Your task to perform on an android device: Show the shopping cart on newegg. Add dell alienware to the cart on newegg, then select checkout. Image 0: 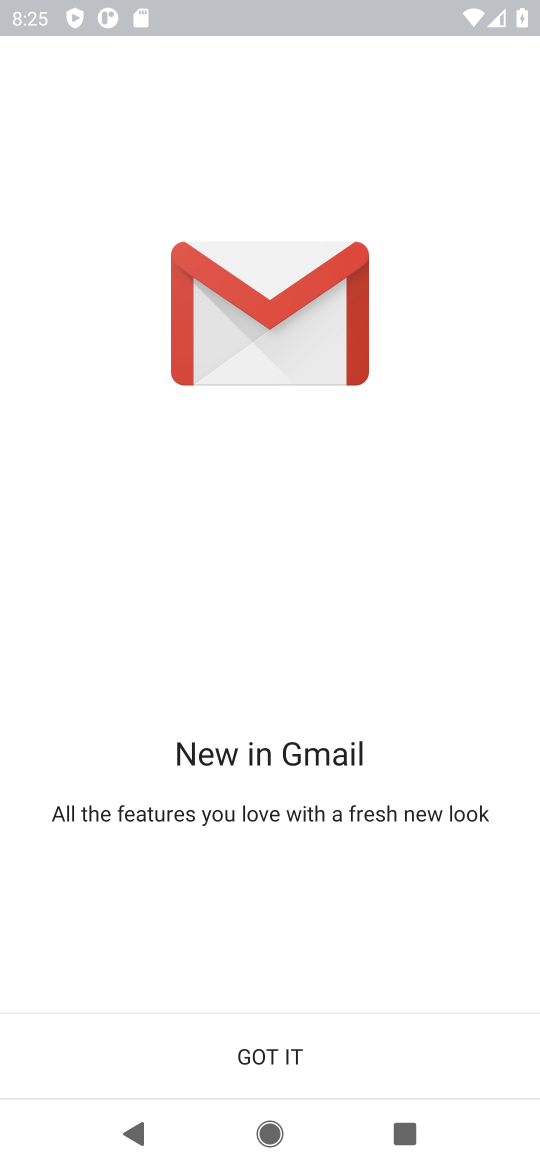
Step 0: press home button
Your task to perform on an android device: Show the shopping cart on newegg. Add dell alienware to the cart on newegg, then select checkout. Image 1: 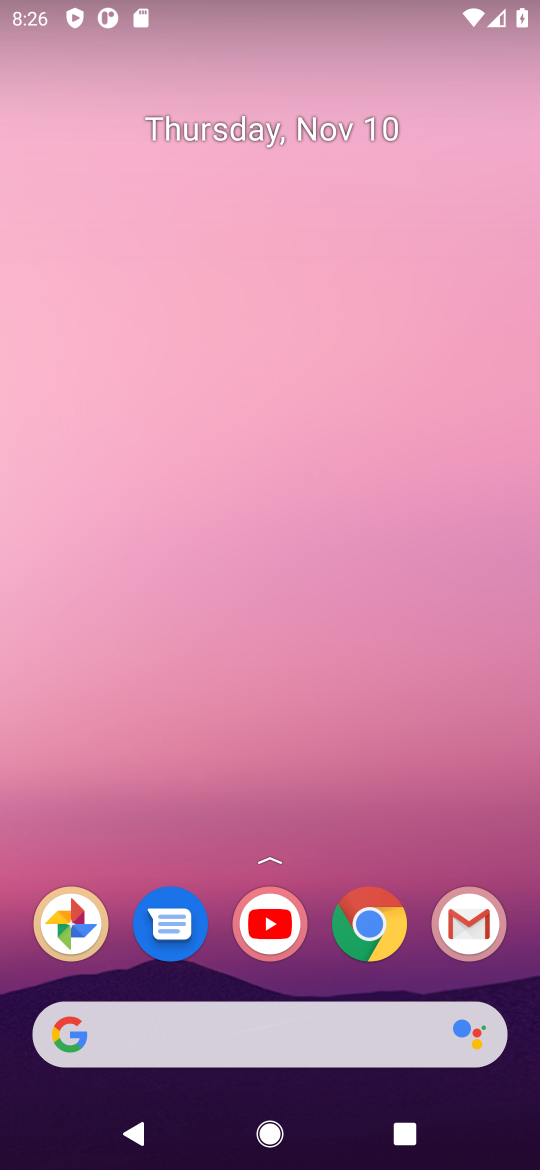
Step 1: click (380, 918)
Your task to perform on an android device: Show the shopping cart on newegg. Add dell alienware to the cart on newegg, then select checkout. Image 2: 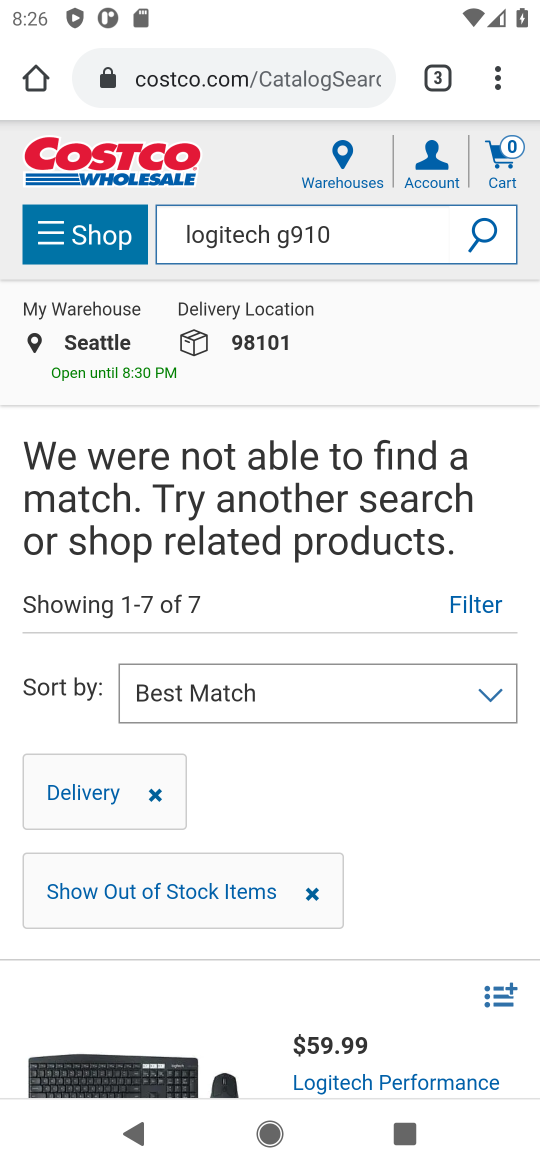
Step 2: click (253, 90)
Your task to perform on an android device: Show the shopping cart on newegg. Add dell alienware to the cart on newegg, then select checkout. Image 3: 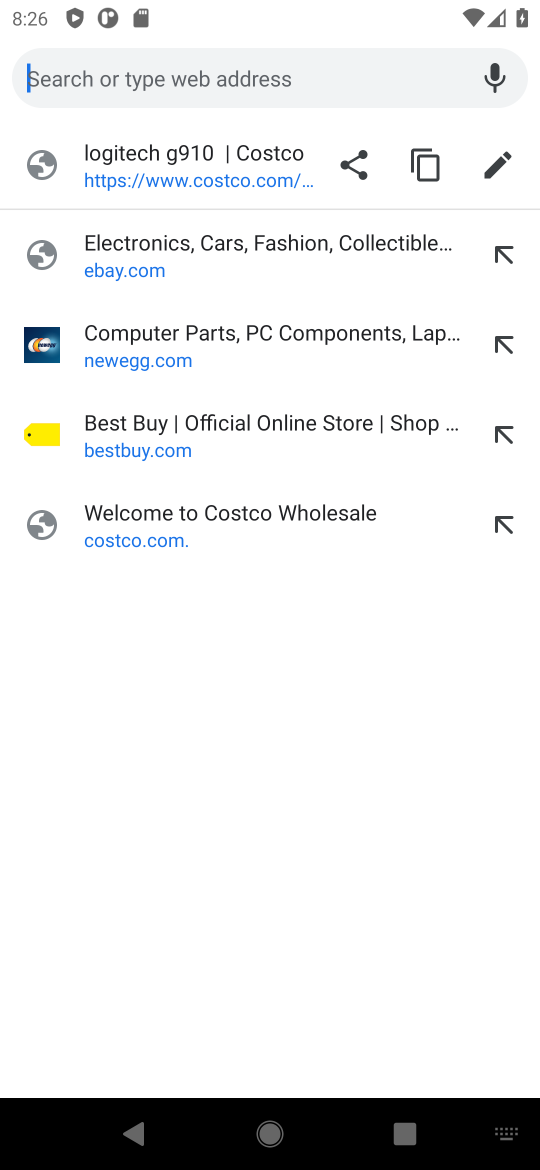
Step 3: click (106, 356)
Your task to perform on an android device: Show the shopping cart on newegg. Add dell alienware to the cart on newegg, then select checkout. Image 4: 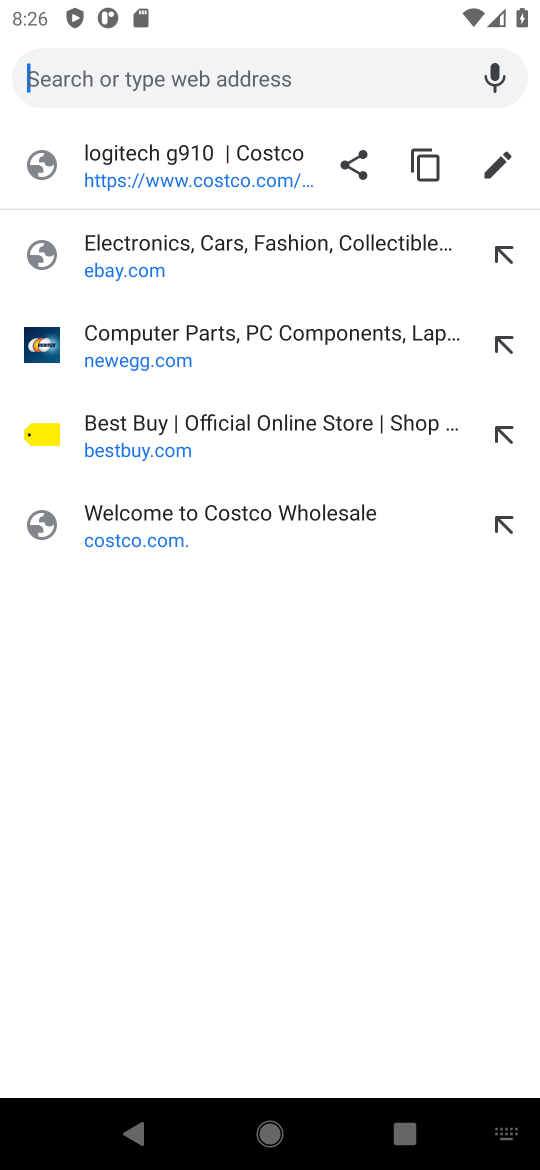
Step 4: click (124, 356)
Your task to perform on an android device: Show the shopping cart on newegg. Add dell alienware to the cart on newegg, then select checkout. Image 5: 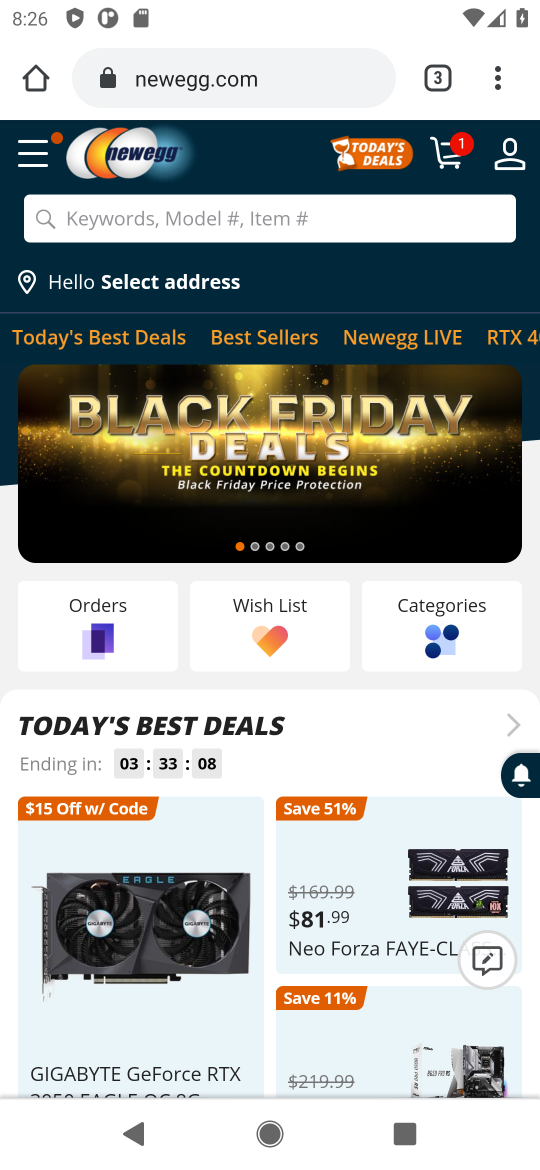
Step 5: click (455, 175)
Your task to perform on an android device: Show the shopping cart on newegg. Add dell alienware to the cart on newegg, then select checkout. Image 6: 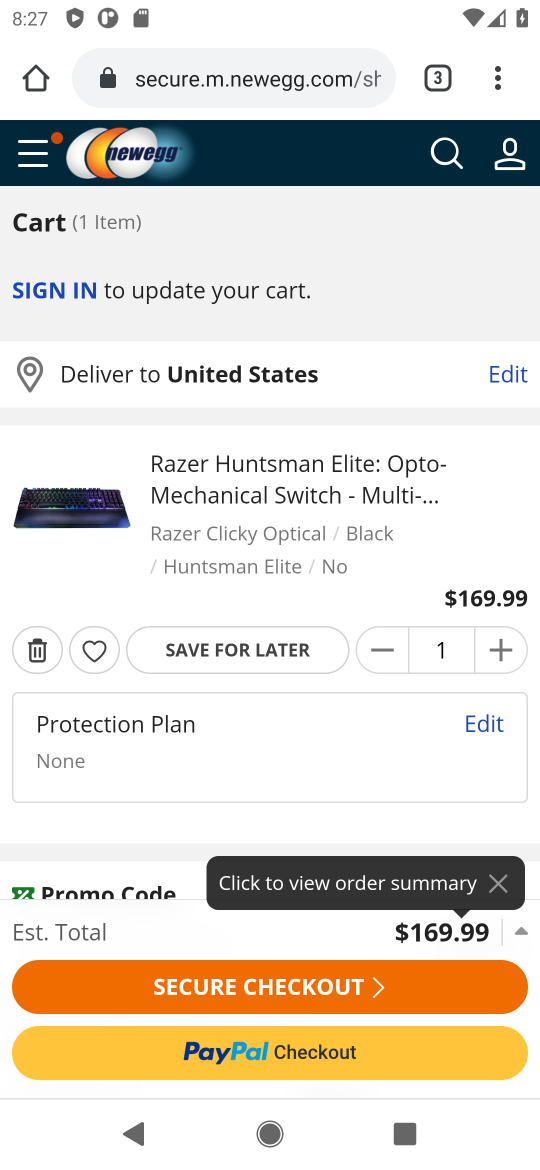
Step 6: click (443, 162)
Your task to perform on an android device: Show the shopping cart on newegg. Add dell alienware to the cart on newegg, then select checkout. Image 7: 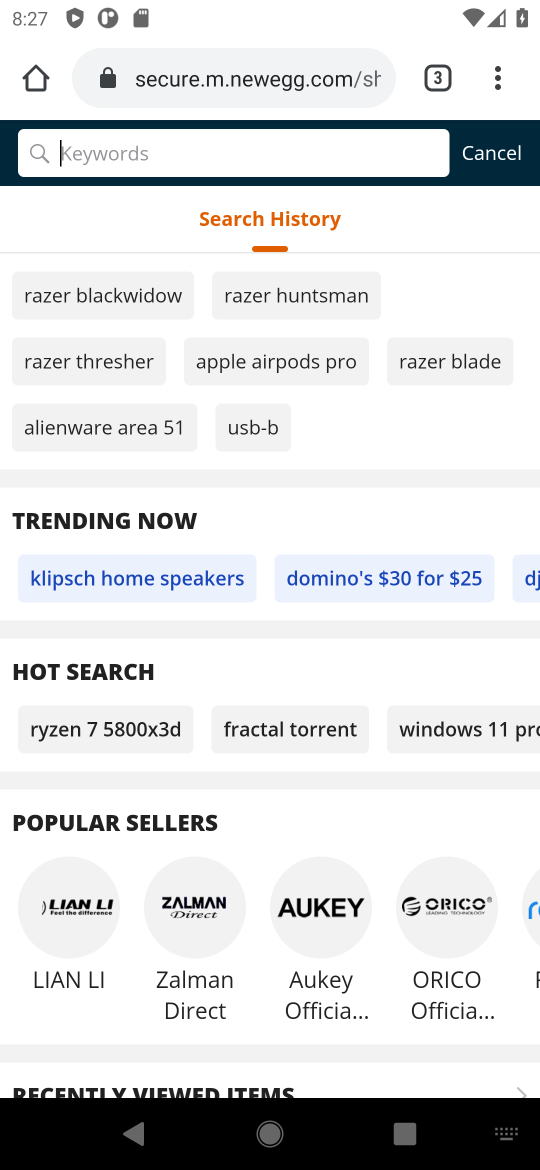
Step 7: type "dell alienware"
Your task to perform on an android device: Show the shopping cart on newegg. Add dell alienware to the cart on newegg, then select checkout. Image 8: 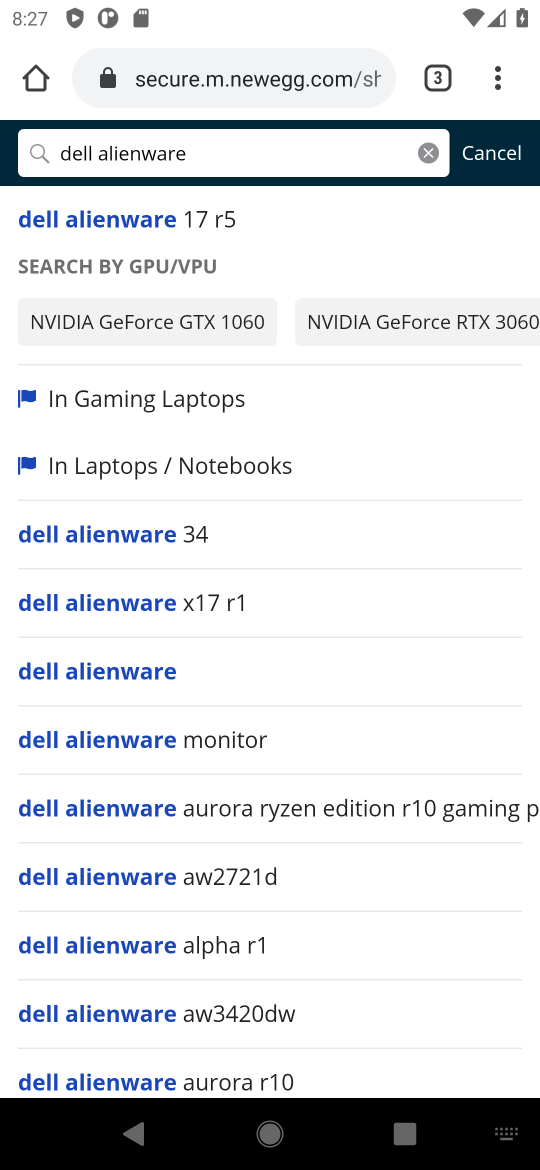
Step 8: click (128, 677)
Your task to perform on an android device: Show the shopping cart on newegg. Add dell alienware to the cart on newegg, then select checkout. Image 9: 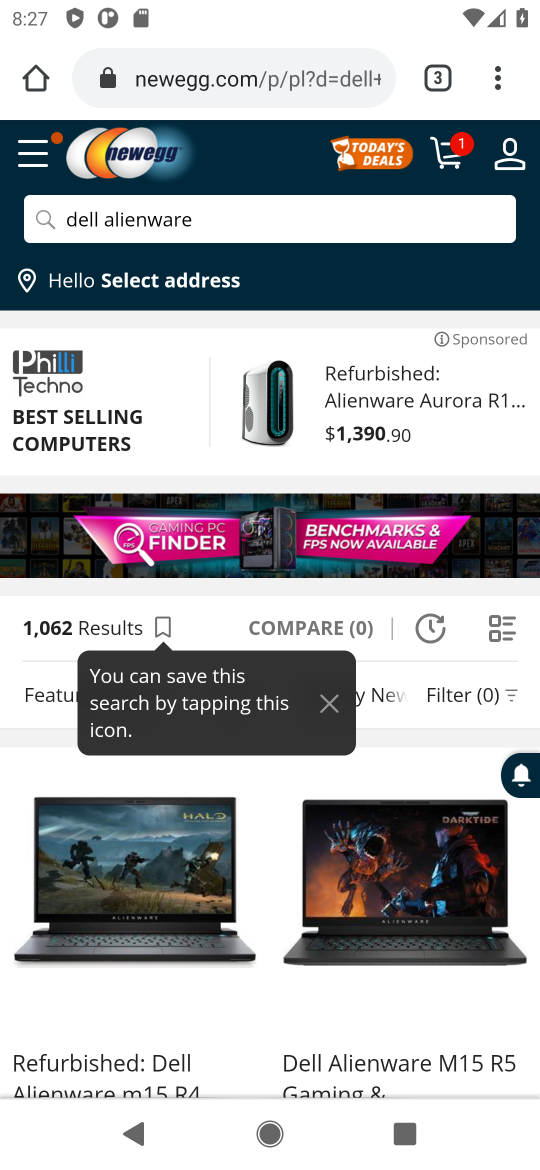
Step 9: drag from (171, 792) to (182, 489)
Your task to perform on an android device: Show the shopping cart on newegg. Add dell alienware to the cart on newegg, then select checkout. Image 10: 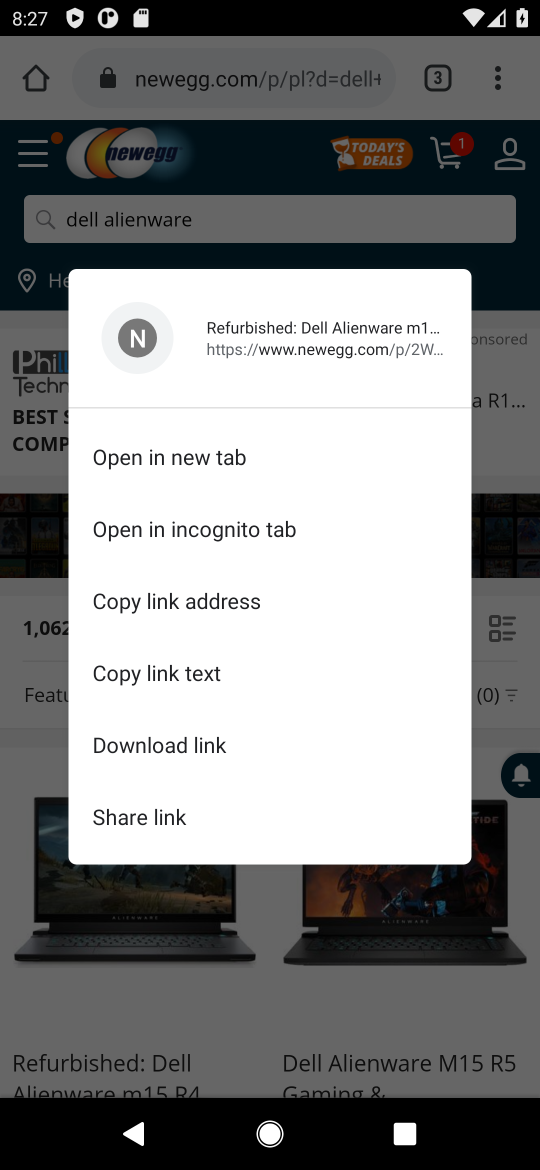
Step 10: click (531, 652)
Your task to perform on an android device: Show the shopping cart on newegg. Add dell alienware to the cart on newegg, then select checkout. Image 11: 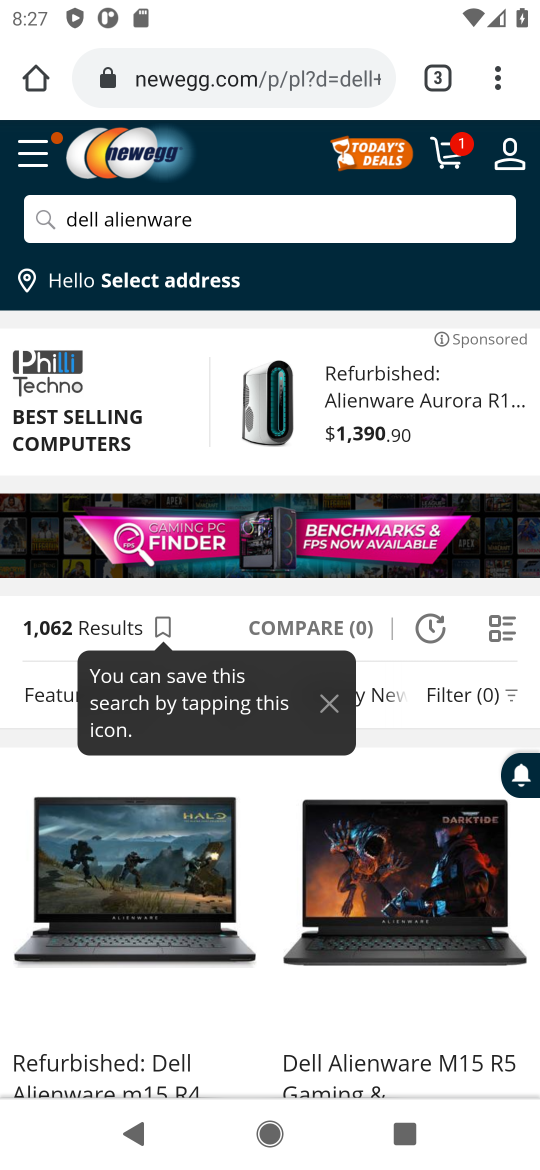
Step 11: drag from (162, 849) to (165, 472)
Your task to perform on an android device: Show the shopping cart on newegg. Add dell alienware to the cart on newegg, then select checkout. Image 12: 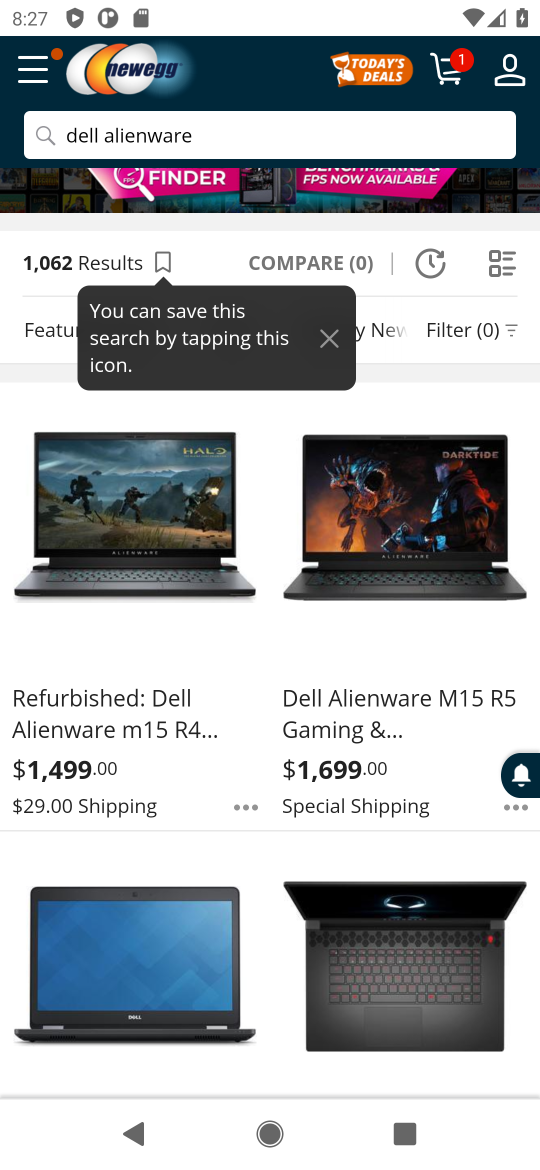
Step 12: click (148, 590)
Your task to perform on an android device: Show the shopping cart on newegg. Add dell alienware to the cart on newegg, then select checkout. Image 13: 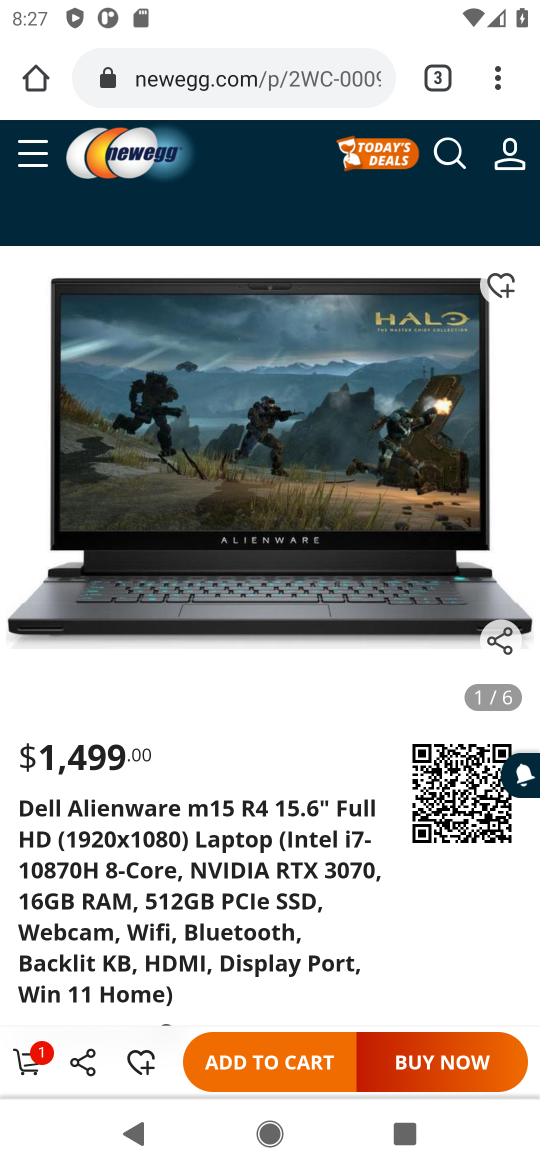
Step 13: click (245, 1062)
Your task to perform on an android device: Show the shopping cart on newegg. Add dell alienware to the cart on newegg, then select checkout. Image 14: 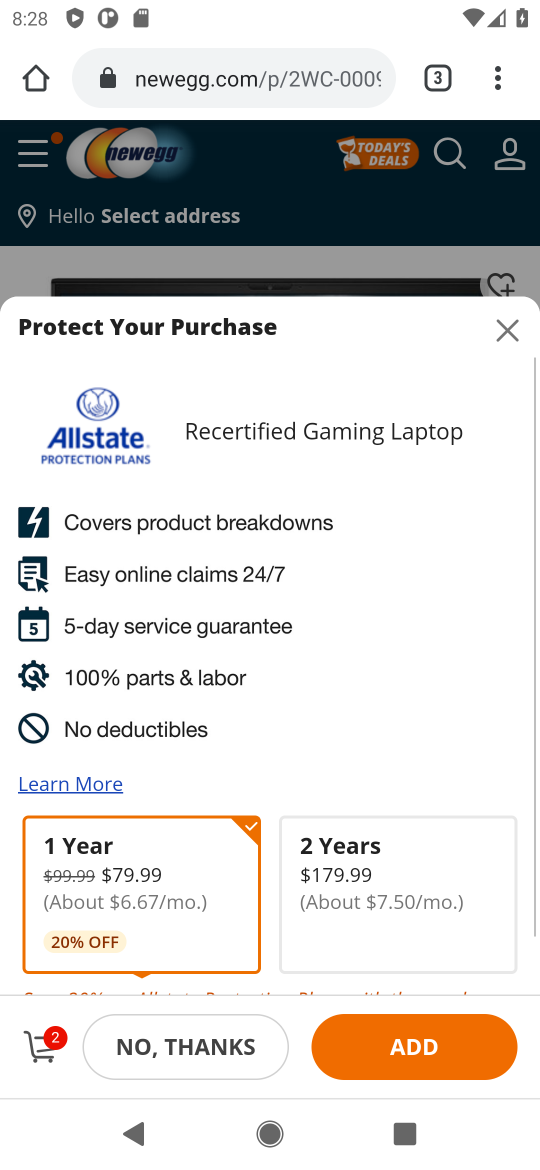
Step 14: click (35, 1043)
Your task to perform on an android device: Show the shopping cart on newegg. Add dell alienware to the cart on newegg, then select checkout. Image 15: 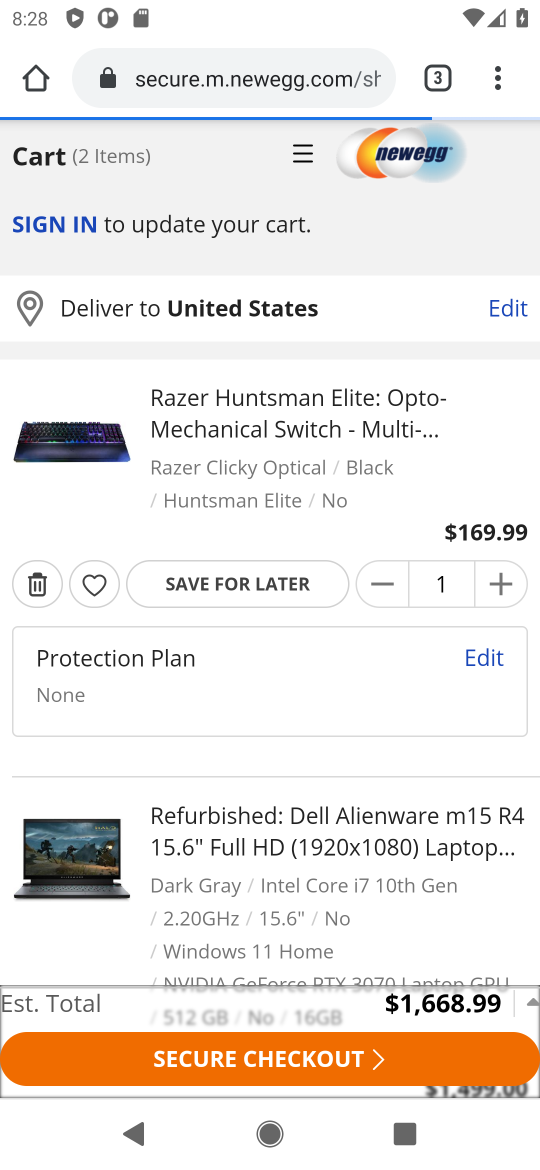
Step 15: click (217, 1071)
Your task to perform on an android device: Show the shopping cart on newegg. Add dell alienware to the cart on newegg, then select checkout. Image 16: 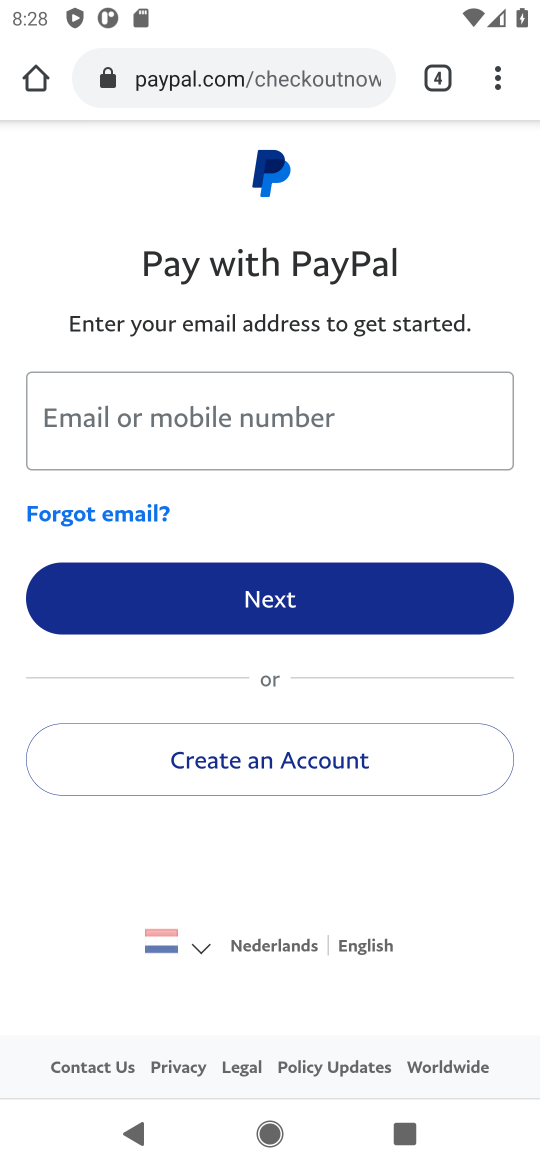
Step 16: task complete